Your task to perform on an android device: set the stopwatch Image 0: 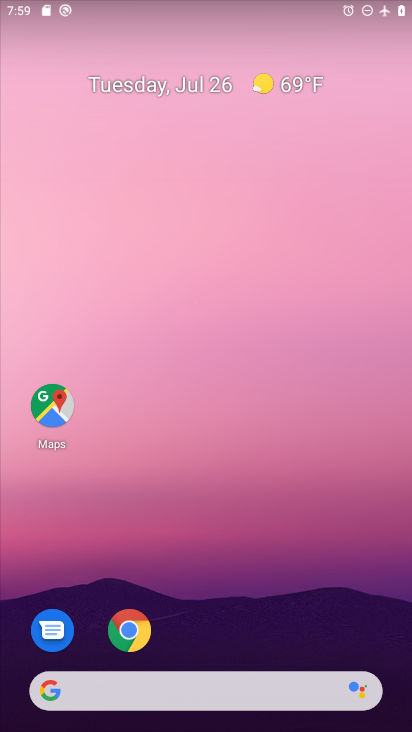
Step 0: drag from (274, 632) to (261, 204)
Your task to perform on an android device: set the stopwatch Image 1: 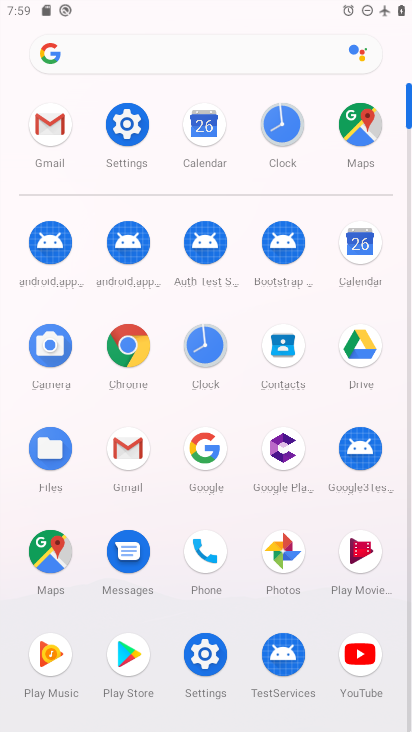
Step 1: click (208, 358)
Your task to perform on an android device: set the stopwatch Image 2: 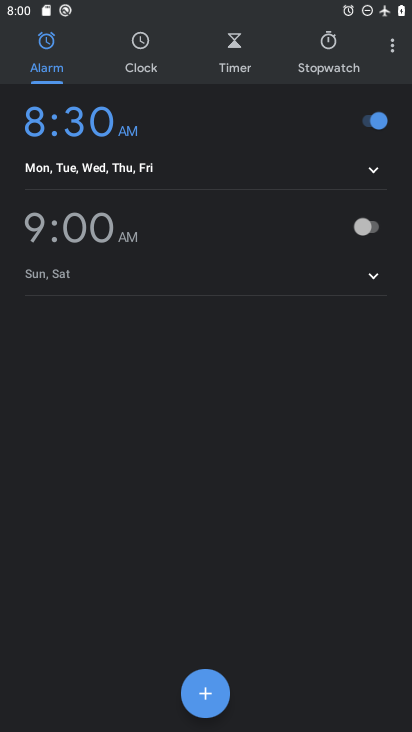
Step 2: click (339, 53)
Your task to perform on an android device: set the stopwatch Image 3: 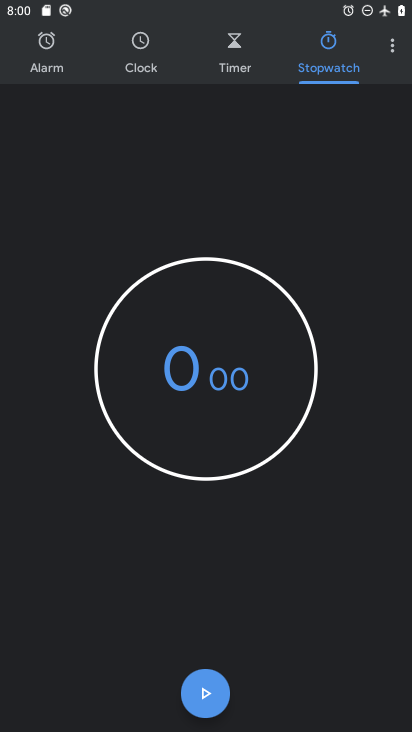
Step 3: click (218, 692)
Your task to perform on an android device: set the stopwatch Image 4: 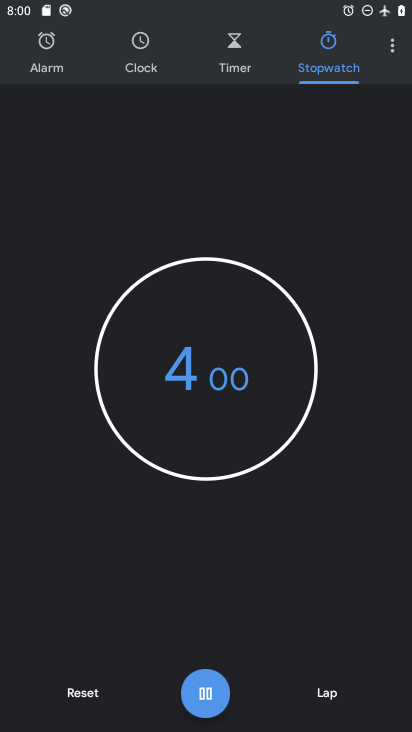
Step 4: task complete